Your task to perform on an android device: make emails show in primary in the gmail app Image 0: 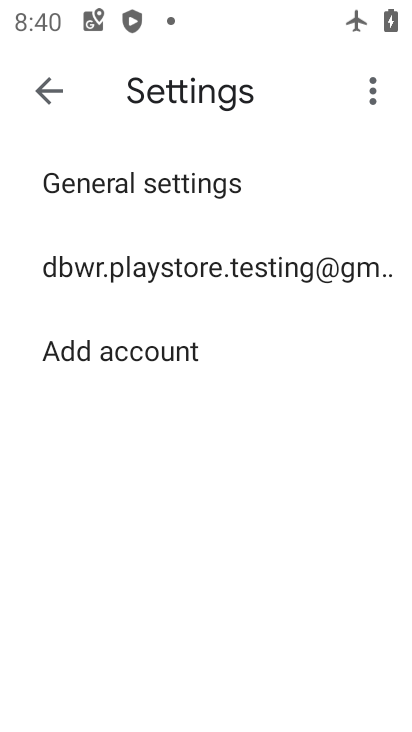
Step 0: press home button
Your task to perform on an android device: make emails show in primary in the gmail app Image 1: 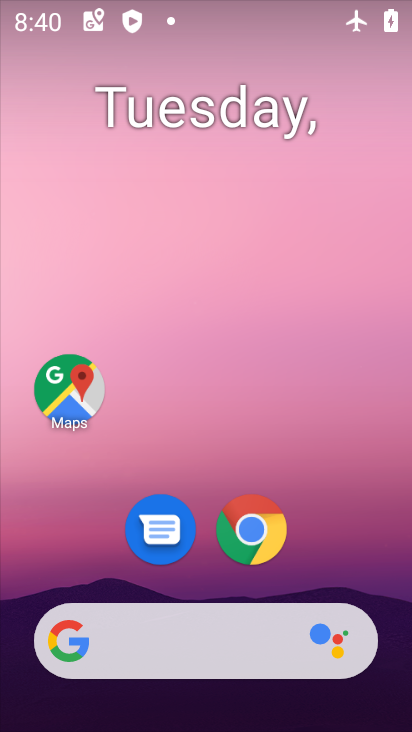
Step 1: drag from (186, 636) to (187, 138)
Your task to perform on an android device: make emails show in primary in the gmail app Image 2: 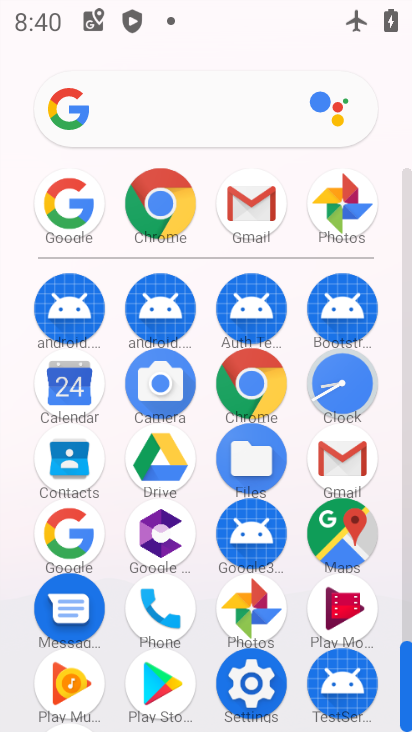
Step 2: click (345, 477)
Your task to perform on an android device: make emails show in primary in the gmail app Image 3: 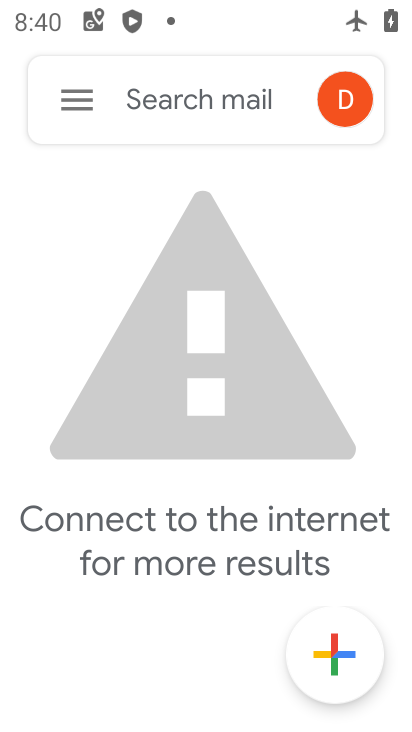
Step 3: click (71, 103)
Your task to perform on an android device: make emails show in primary in the gmail app Image 4: 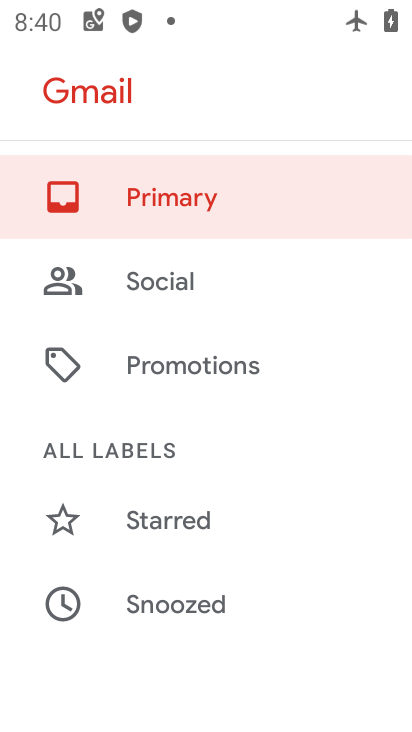
Step 4: drag from (164, 498) to (204, 179)
Your task to perform on an android device: make emails show in primary in the gmail app Image 5: 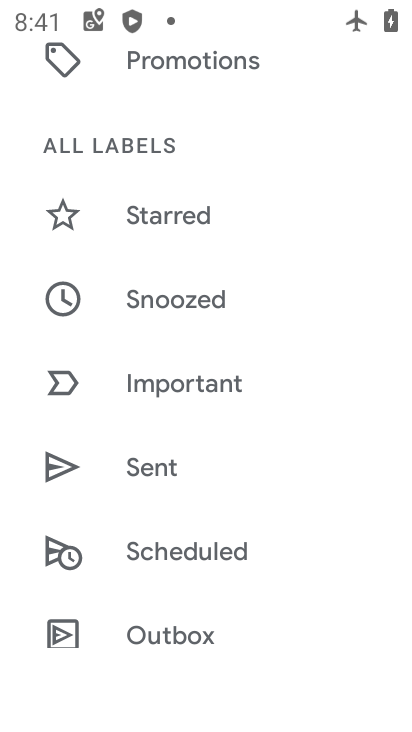
Step 5: drag from (174, 558) to (113, 104)
Your task to perform on an android device: make emails show in primary in the gmail app Image 6: 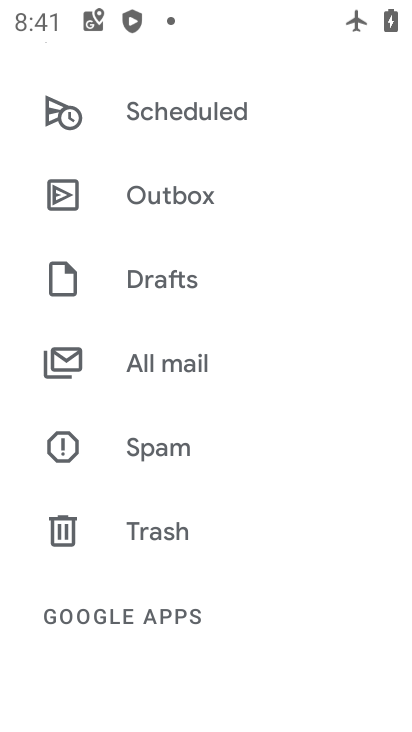
Step 6: drag from (129, 590) to (80, 165)
Your task to perform on an android device: make emails show in primary in the gmail app Image 7: 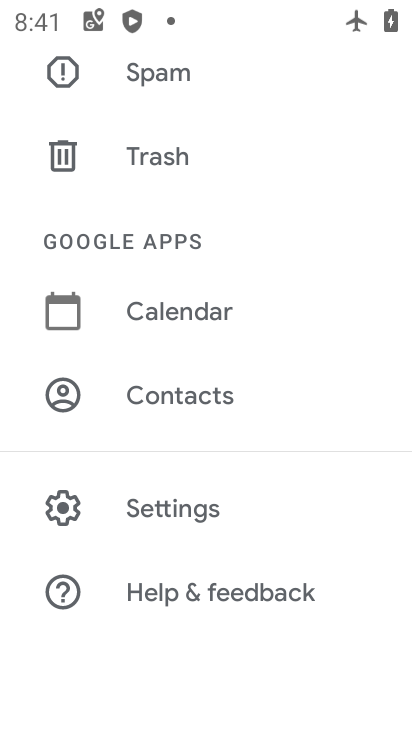
Step 7: click (210, 510)
Your task to perform on an android device: make emails show in primary in the gmail app Image 8: 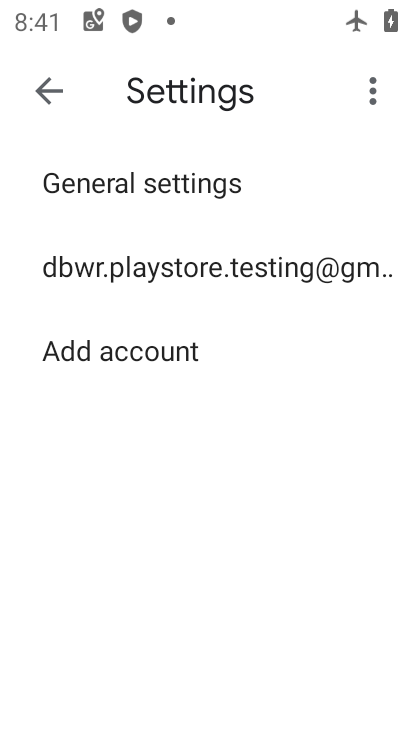
Step 8: task complete